Your task to perform on an android device: open app "Pinterest" (install if not already installed), go to login, and select forgot password Image 0: 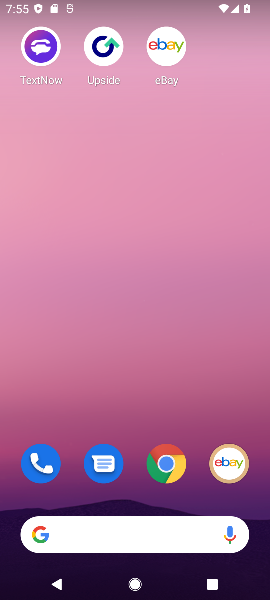
Step 0: drag from (142, 483) to (142, 42)
Your task to perform on an android device: open app "Pinterest" (install if not already installed), go to login, and select forgot password Image 1: 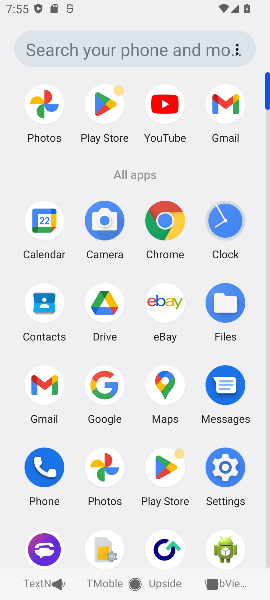
Step 1: click (159, 457)
Your task to perform on an android device: open app "Pinterest" (install if not already installed), go to login, and select forgot password Image 2: 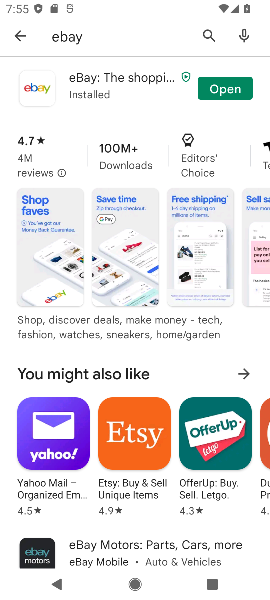
Step 2: click (16, 37)
Your task to perform on an android device: open app "Pinterest" (install if not already installed), go to login, and select forgot password Image 3: 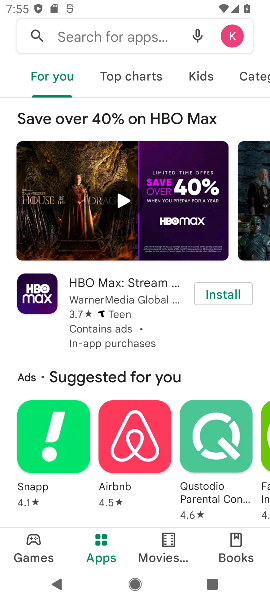
Step 3: click (102, 40)
Your task to perform on an android device: open app "Pinterest" (install if not already installed), go to login, and select forgot password Image 4: 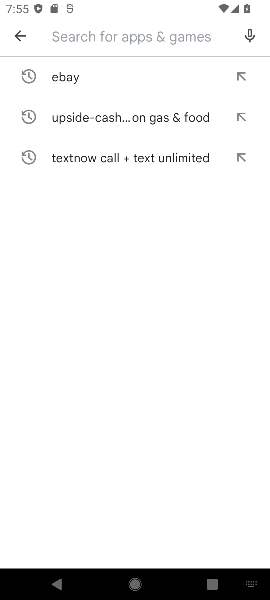
Step 4: type "Pinterest"
Your task to perform on an android device: open app "Pinterest" (install if not already installed), go to login, and select forgot password Image 5: 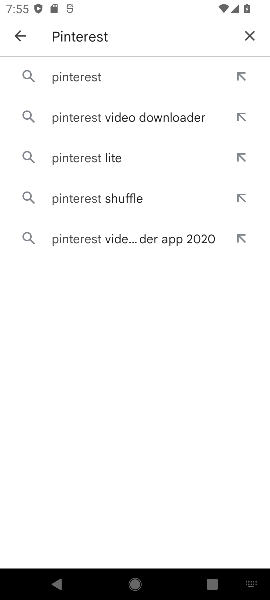
Step 5: click (91, 75)
Your task to perform on an android device: open app "Pinterest" (install if not already installed), go to login, and select forgot password Image 6: 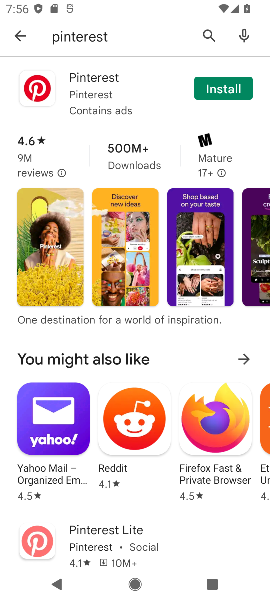
Step 6: click (217, 85)
Your task to perform on an android device: open app "Pinterest" (install if not already installed), go to login, and select forgot password Image 7: 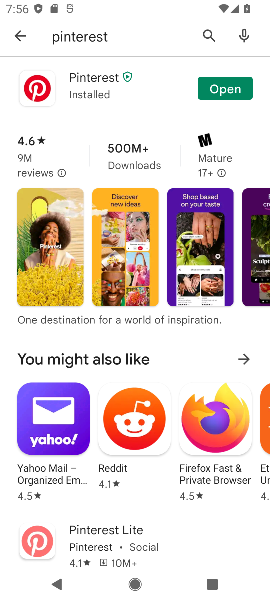
Step 7: click (217, 85)
Your task to perform on an android device: open app "Pinterest" (install if not already installed), go to login, and select forgot password Image 8: 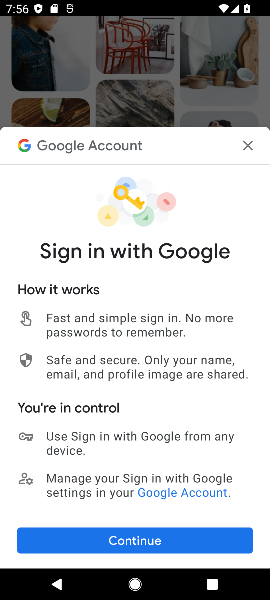
Step 8: click (141, 546)
Your task to perform on an android device: open app "Pinterest" (install if not already installed), go to login, and select forgot password Image 9: 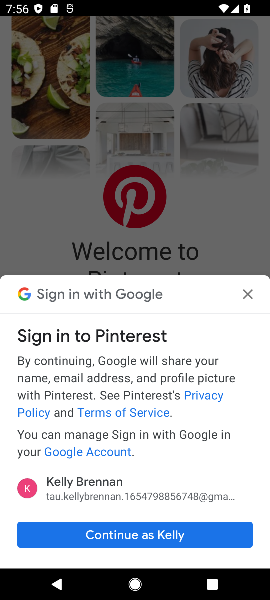
Step 9: click (172, 527)
Your task to perform on an android device: open app "Pinterest" (install if not already installed), go to login, and select forgot password Image 10: 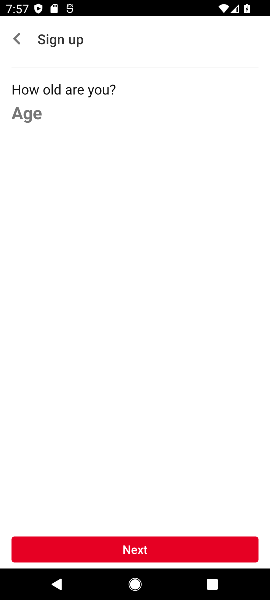
Step 10: task complete